Your task to perform on an android device: Open Chrome and go to settings Image 0: 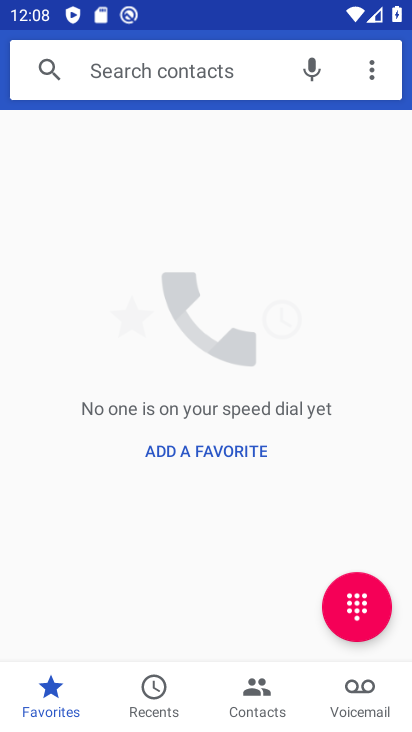
Step 0: press home button
Your task to perform on an android device: Open Chrome and go to settings Image 1: 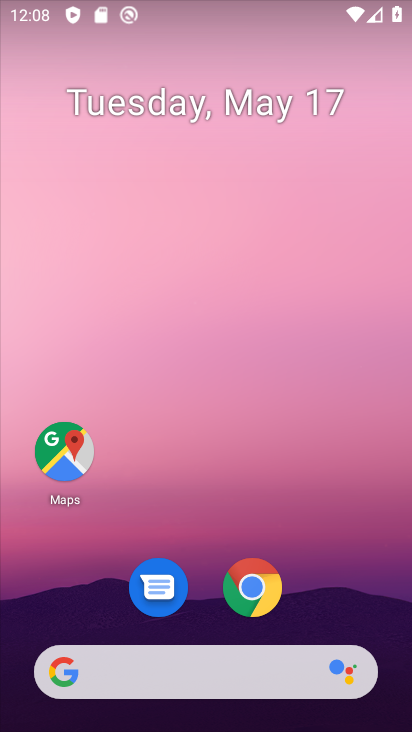
Step 1: drag from (207, 600) to (259, 81)
Your task to perform on an android device: Open Chrome and go to settings Image 2: 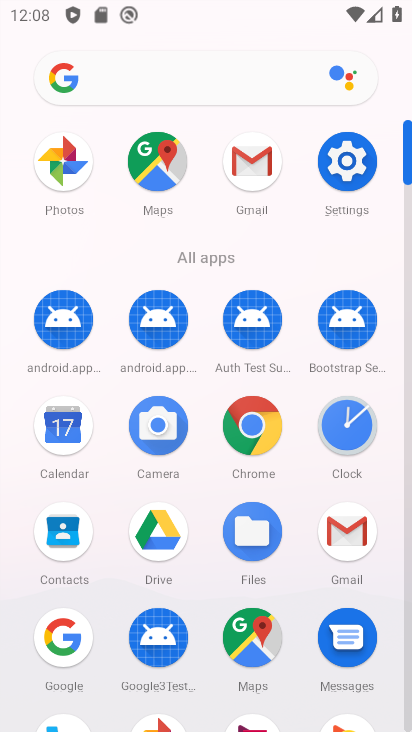
Step 2: click (263, 437)
Your task to perform on an android device: Open Chrome and go to settings Image 3: 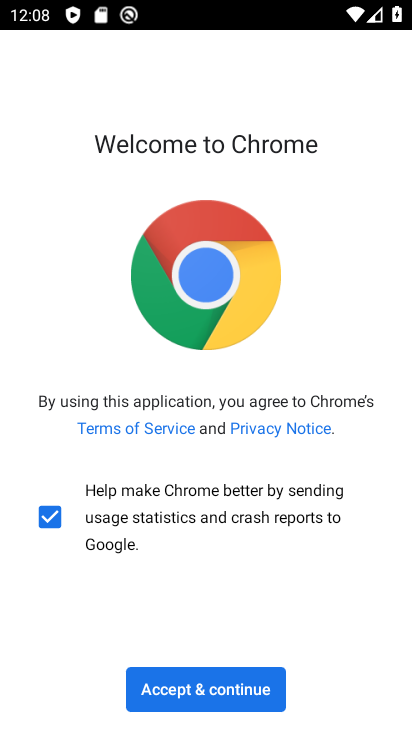
Step 3: click (210, 690)
Your task to perform on an android device: Open Chrome and go to settings Image 4: 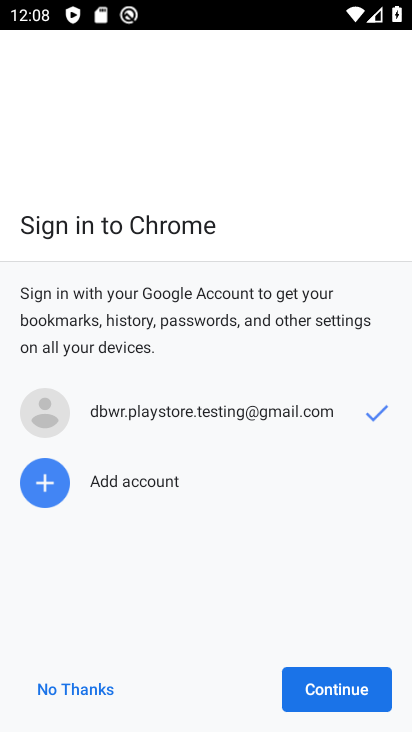
Step 4: click (326, 680)
Your task to perform on an android device: Open Chrome and go to settings Image 5: 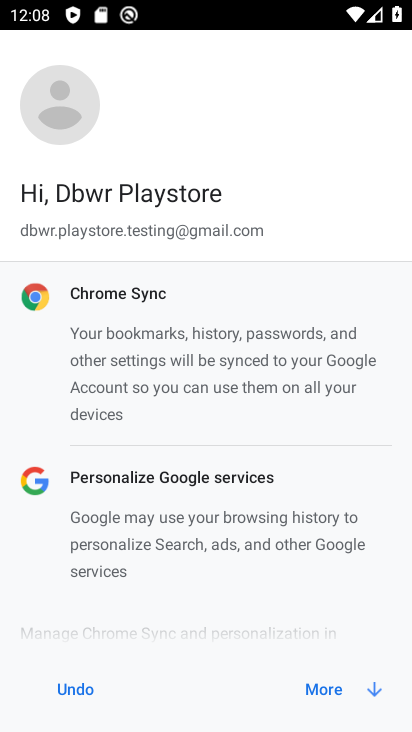
Step 5: click (324, 690)
Your task to perform on an android device: Open Chrome and go to settings Image 6: 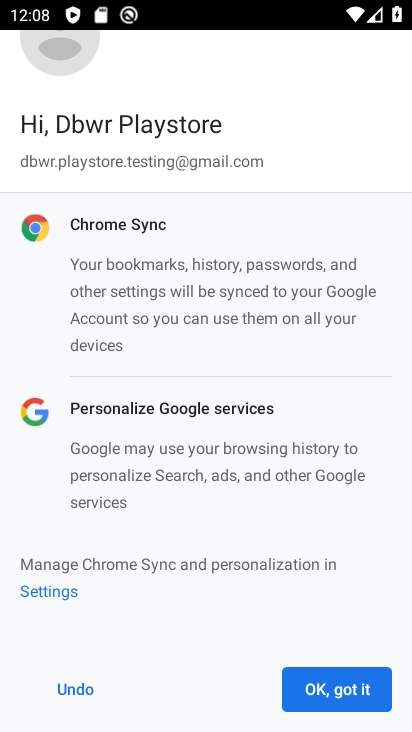
Step 6: click (337, 683)
Your task to perform on an android device: Open Chrome and go to settings Image 7: 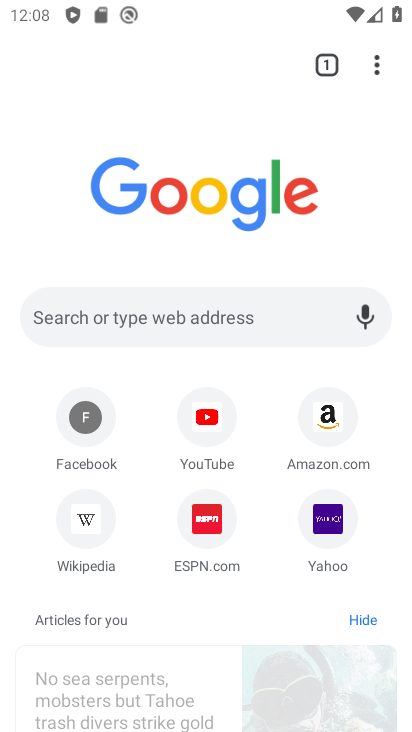
Step 7: click (380, 81)
Your task to perform on an android device: Open Chrome and go to settings Image 8: 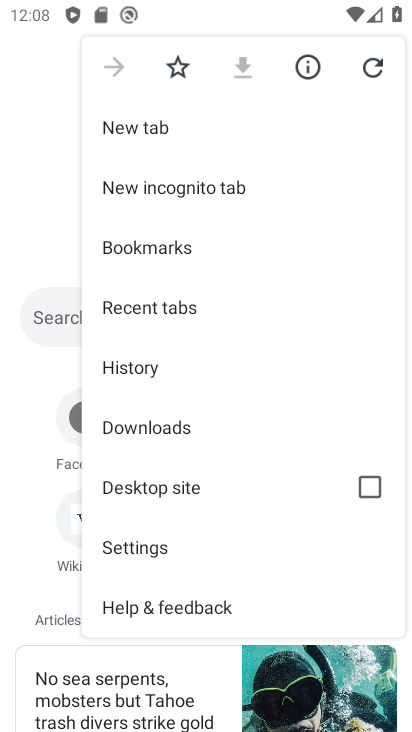
Step 8: click (154, 550)
Your task to perform on an android device: Open Chrome and go to settings Image 9: 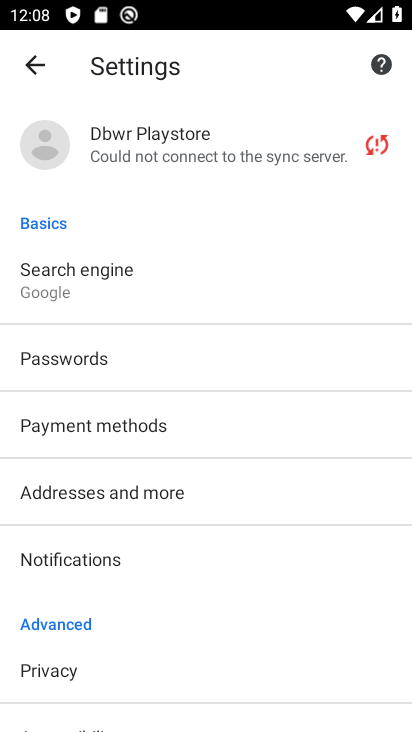
Step 9: task complete